Your task to perform on an android device: remove spam from my inbox in the gmail app Image 0: 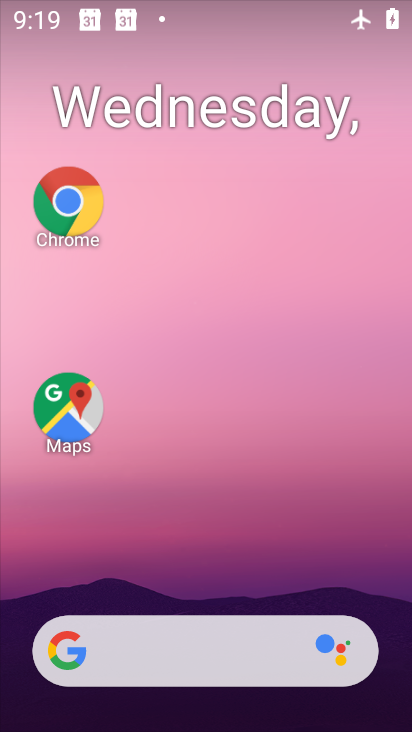
Step 0: drag from (208, 572) to (274, 21)
Your task to perform on an android device: remove spam from my inbox in the gmail app Image 1: 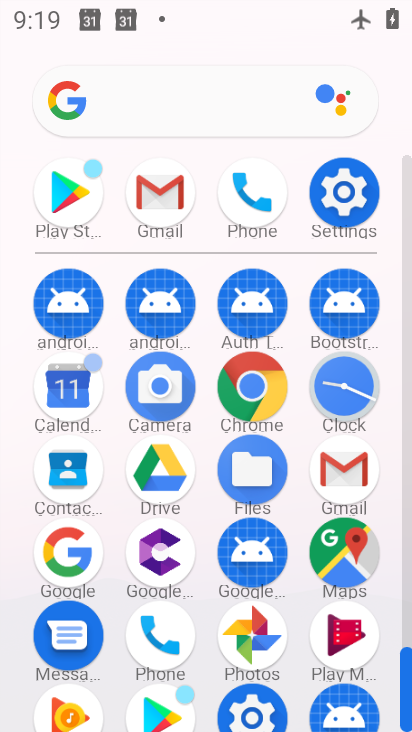
Step 1: click (339, 476)
Your task to perform on an android device: remove spam from my inbox in the gmail app Image 2: 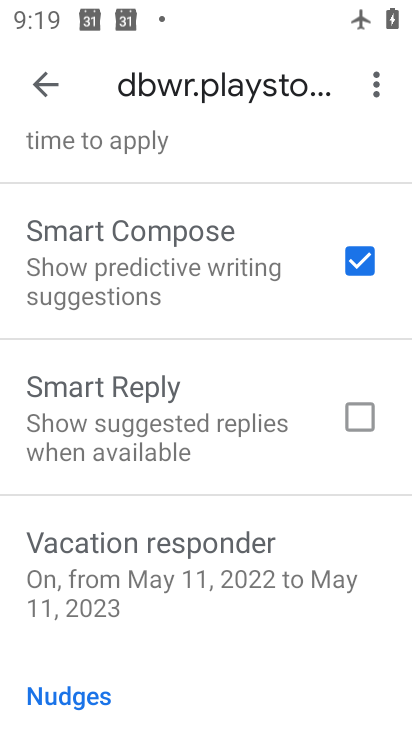
Step 2: click (47, 69)
Your task to perform on an android device: remove spam from my inbox in the gmail app Image 3: 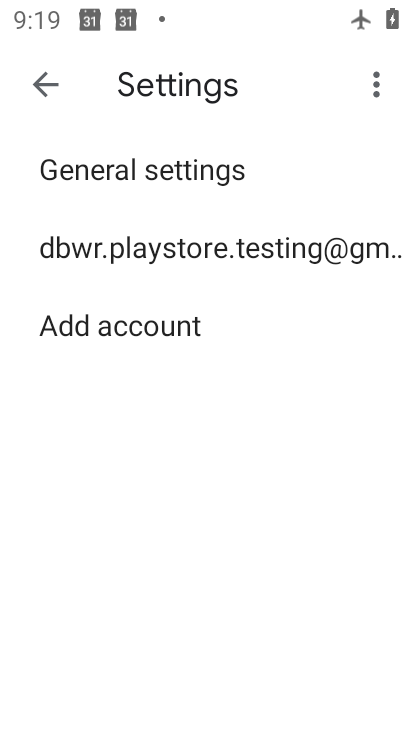
Step 3: click (47, 69)
Your task to perform on an android device: remove spam from my inbox in the gmail app Image 4: 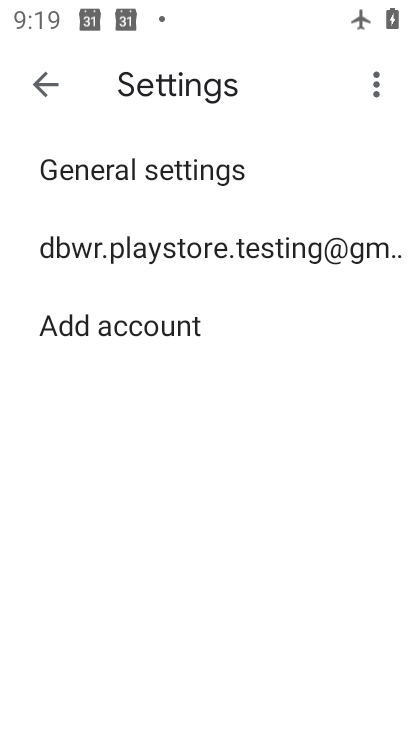
Step 4: click (47, 69)
Your task to perform on an android device: remove spam from my inbox in the gmail app Image 5: 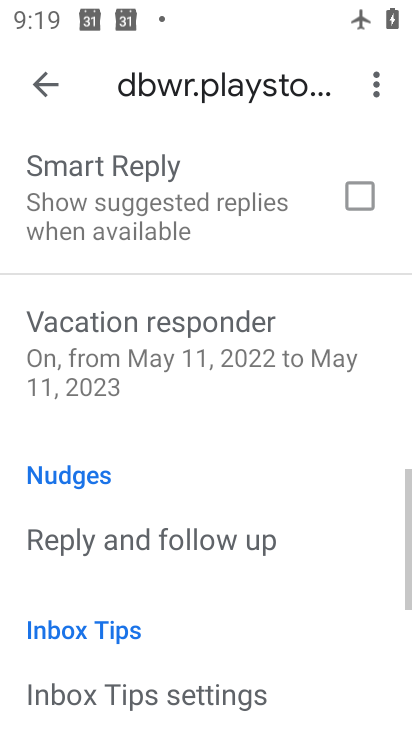
Step 5: click (47, 69)
Your task to perform on an android device: remove spam from my inbox in the gmail app Image 6: 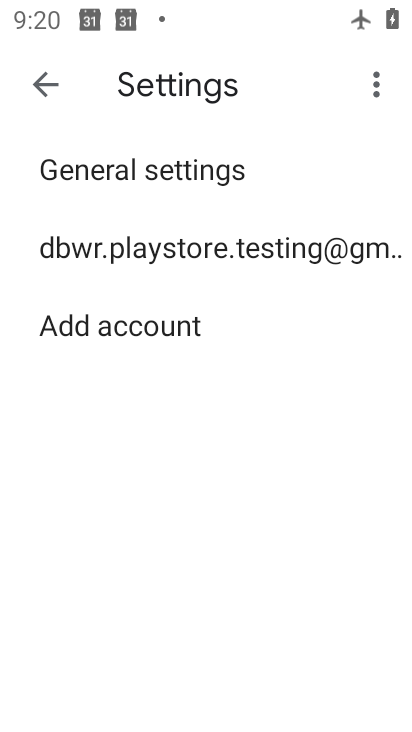
Step 6: click (47, 69)
Your task to perform on an android device: remove spam from my inbox in the gmail app Image 7: 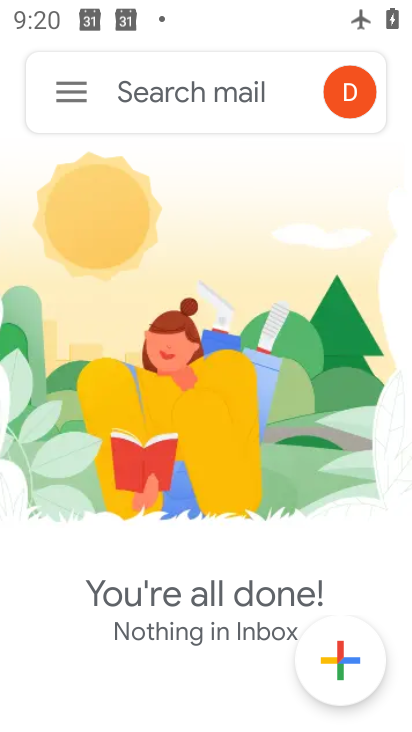
Step 7: click (47, 69)
Your task to perform on an android device: remove spam from my inbox in the gmail app Image 8: 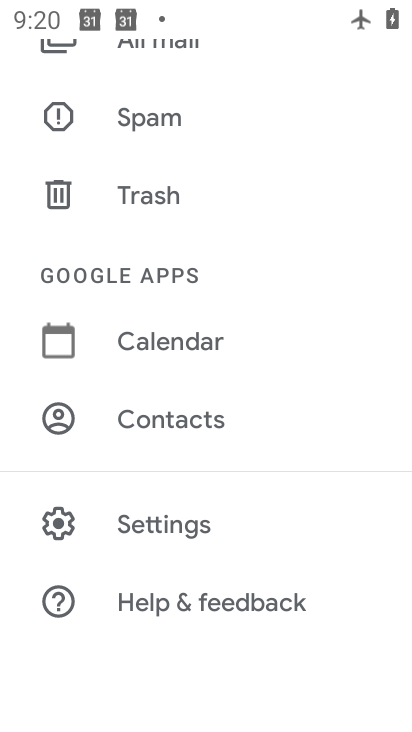
Step 8: click (106, 117)
Your task to perform on an android device: remove spam from my inbox in the gmail app Image 9: 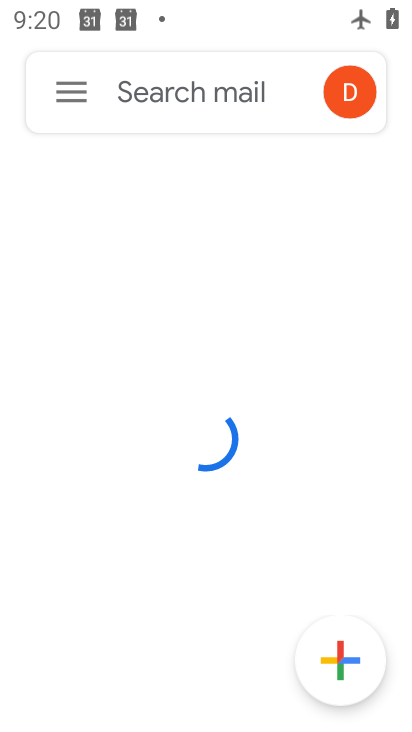
Step 9: task complete